Your task to perform on an android device: Open Youtube and go to the subscriptions tab Image 0: 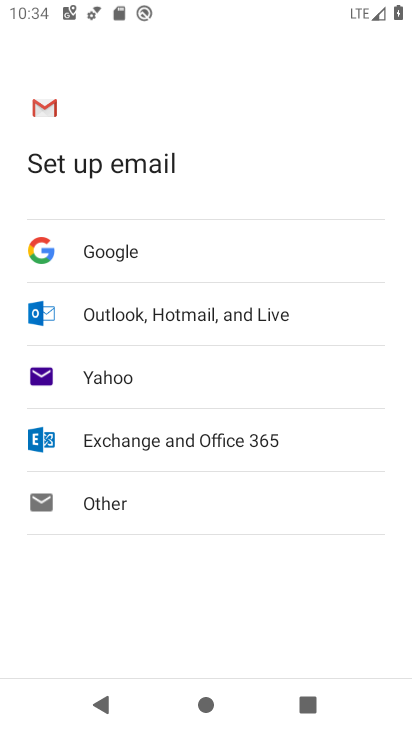
Step 0: press home button
Your task to perform on an android device: Open Youtube and go to the subscriptions tab Image 1: 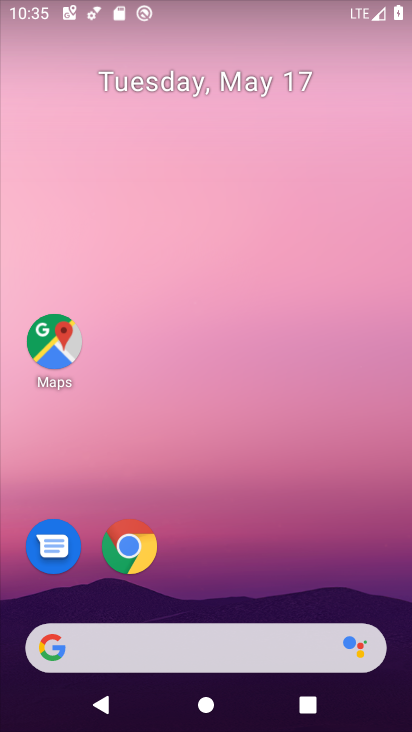
Step 1: drag from (222, 567) to (251, 87)
Your task to perform on an android device: Open Youtube and go to the subscriptions tab Image 2: 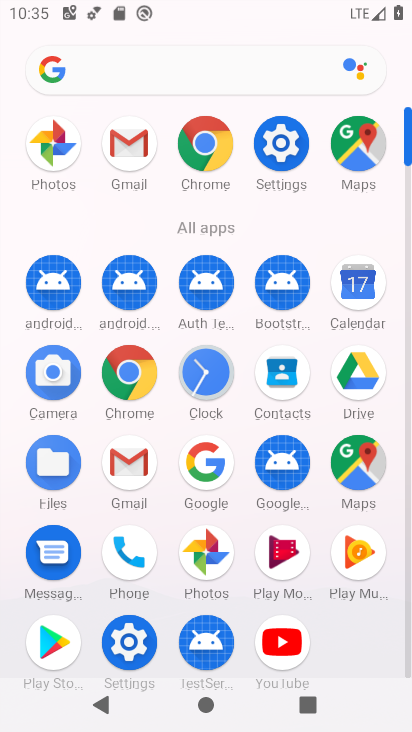
Step 2: click (283, 651)
Your task to perform on an android device: Open Youtube and go to the subscriptions tab Image 3: 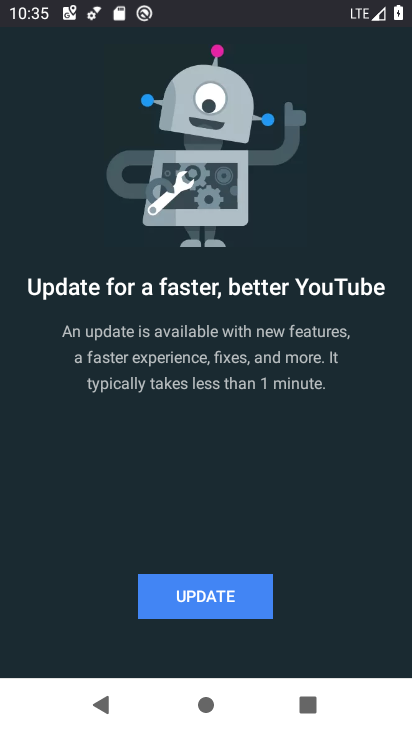
Step 3: click (209, 606)
Your task to perform on an android device: Open Youtube and go to the subscriptions tab Image 4: 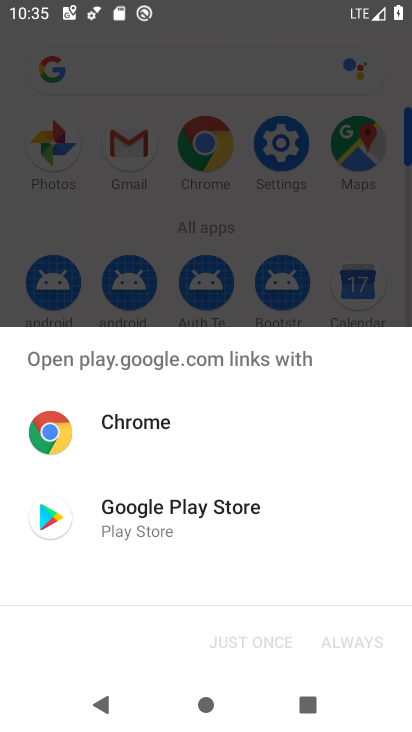
Step 4: click (197, 516)
Your task to perform on an android device: Open Youtube and go to the subscriptions tab Image 5: 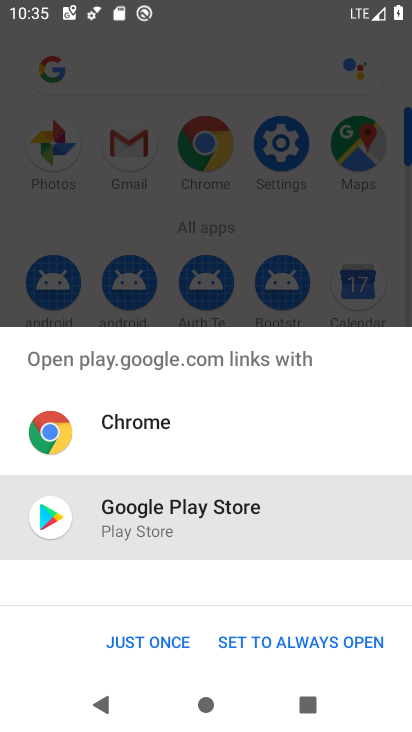
Step 5: click (162, 633)
Your task to perform on an android device: Open Youtube and go to the subscriptions tab Image 6: 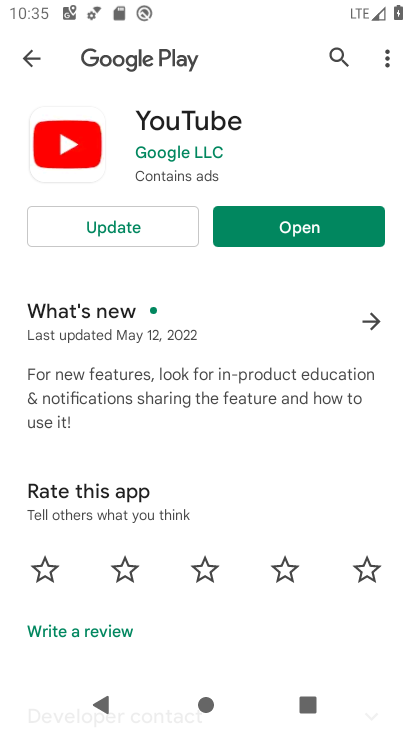
Step 6: click (128, 229)
Your task to perform on an android device: Open Youtube and go to the subscriptions tab Image 7: 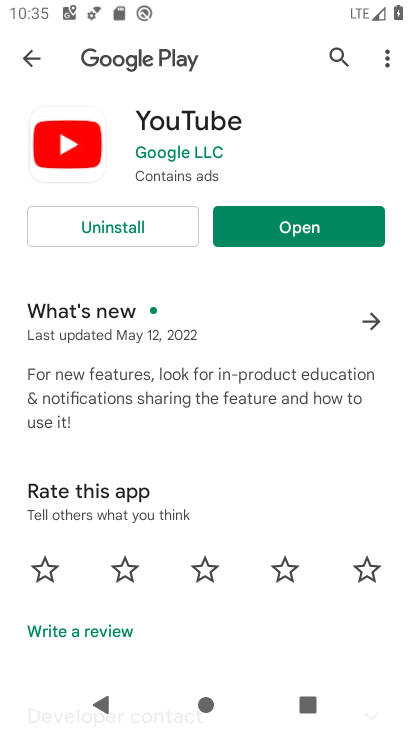
Step 7: click (258, 221)
Your task to perform on an android device: Open Youtube and go to the subscriptions tab Image 8: 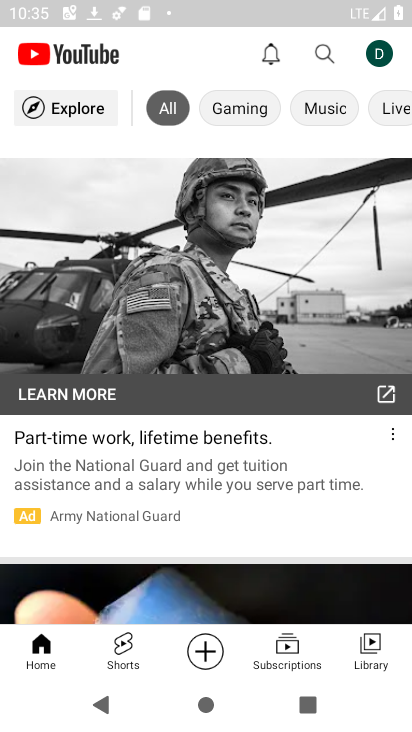
Step 8: click (254, 650)
Your task to perform on an android device: Open Youtube and go to the subscriptions tab Image 9: 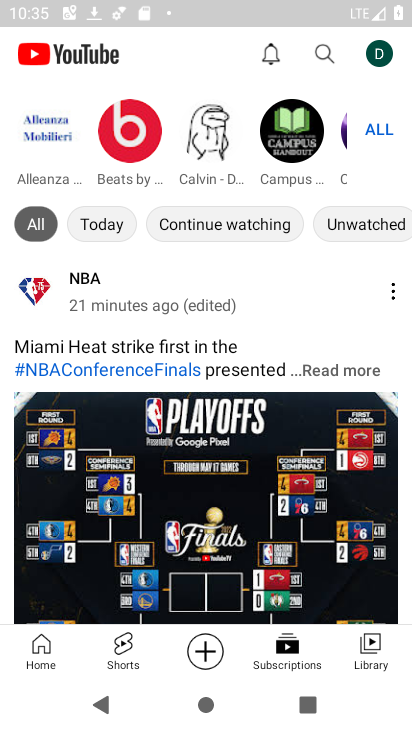
Step 9: task complete